Your task to perform on an android device: Open sound settings Image 0: 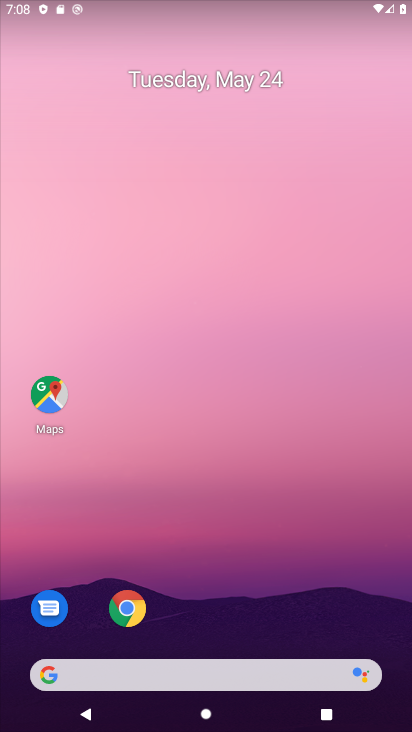
Step 0: drag from (279, 595) to (224, 130)
Your task to perform on an android device: Open sound settings Image 1: 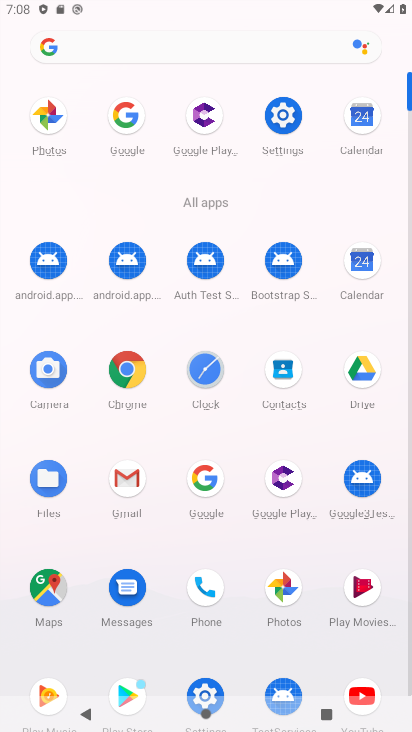
Step 1: click (283, 116)
Your task to perform on an android device: Open sound settings Image 2: 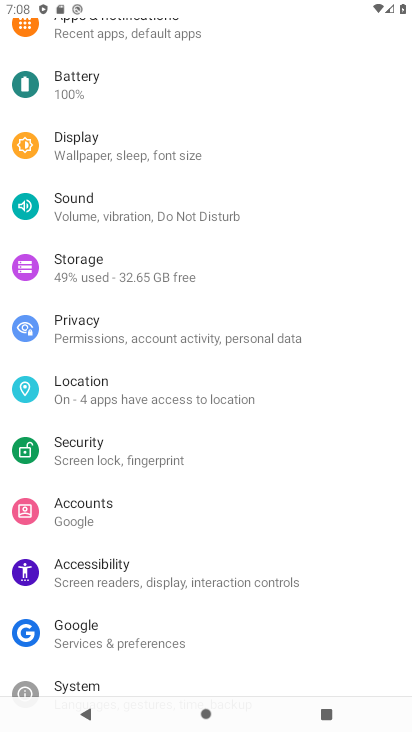
Step 2: click (143, 219)
Your task to perform on an android device: Open sound settings Image 3: 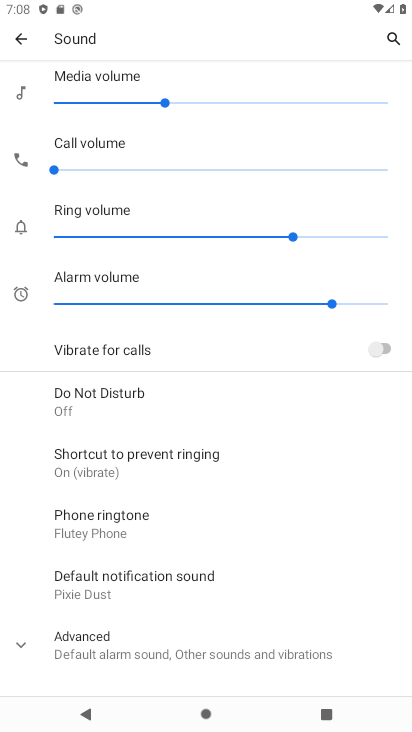
Step 3: task complete